Your task to perform on an android device: empty trash in the gmail app Image 0: 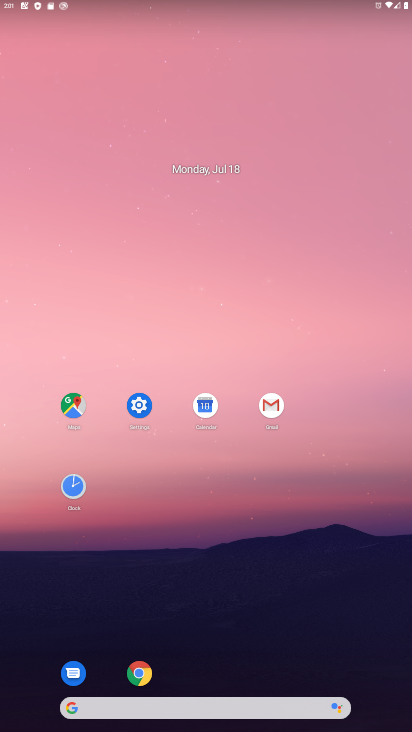
Step 0: drag from (397, 675) to (390, 60)
Your task to perform on an android device: empty trash in the gmail app Image 1: 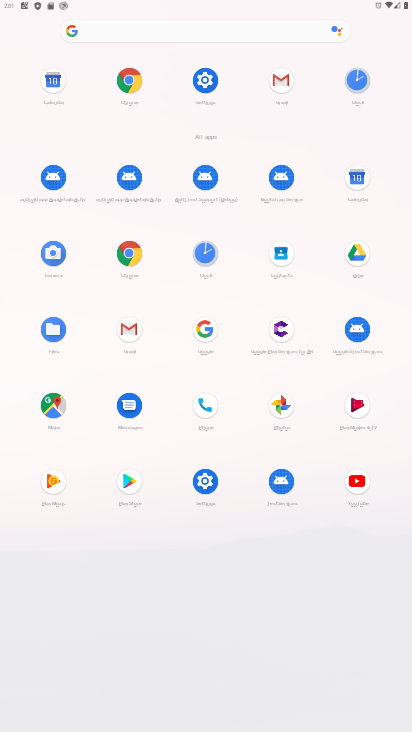
Step 1: click (125, 330)
Your task to perform on an android device: empty trash in the gmail app Image 2: 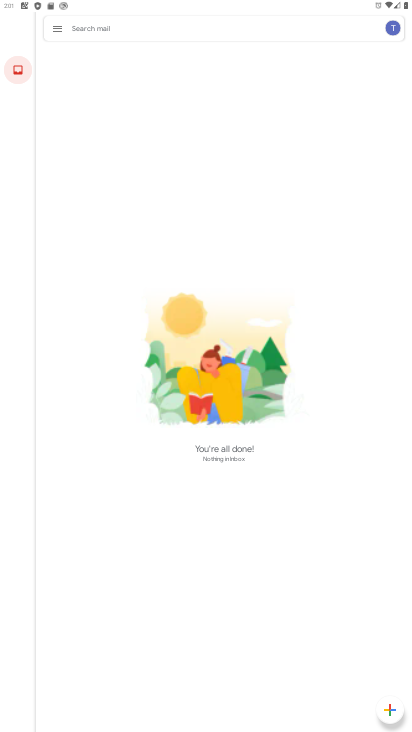
Step 2: click (52, 27)
Your task to perform on an android device: empty trash in the gmail app Image 3: 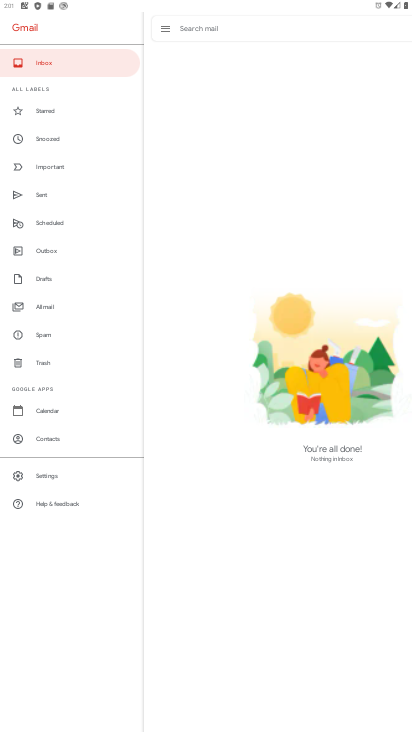
Step 3: click (45, 365)
Your task to perform on an android device: empty trash in the gmail app Image 4: 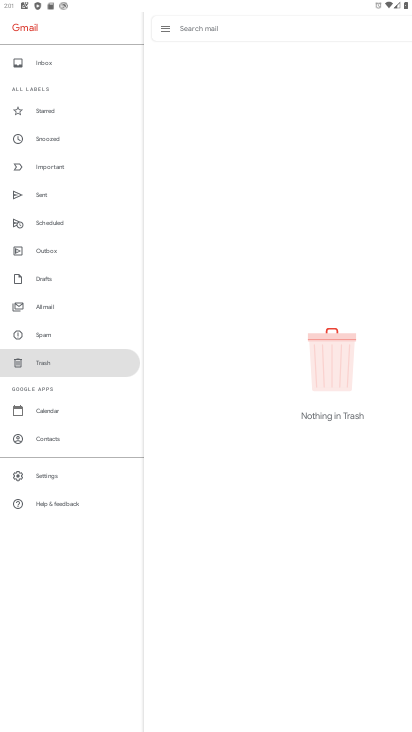
Step 4: task complete